Your task to perform on an android device: Turn off the flashlight Image 0: 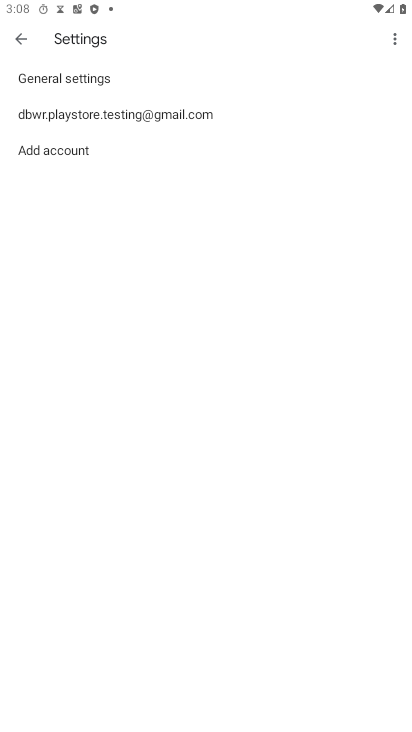
Step 0: press home button
Your task to perform on an android device: Turn off the flashlight Image 1: 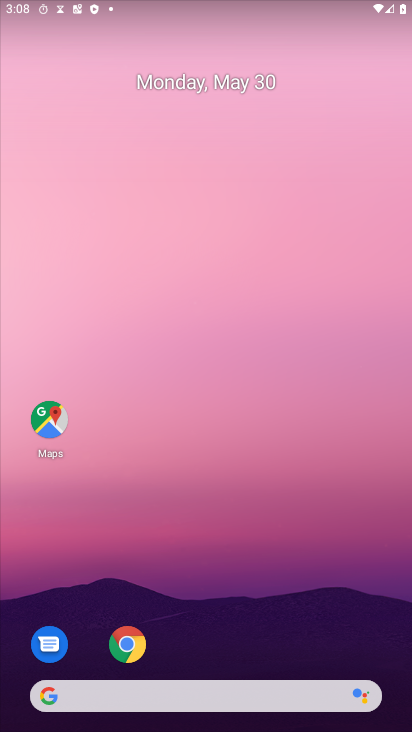
Step 1: task complete